Your task to perform on an android device: Open the map Image 0: 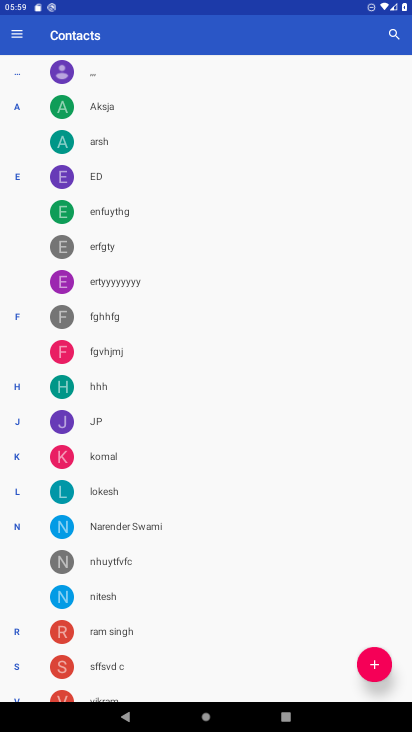
Step 0: press home button
Your task to perform on an android device: Open the map Image 1: 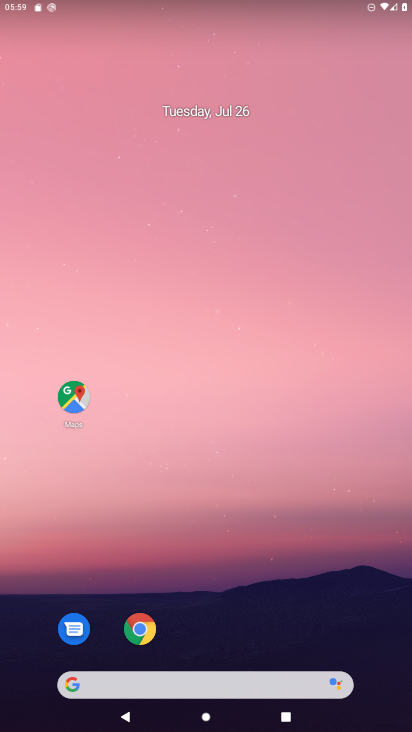
Step 1: click (77, 402)
Your task to perform on an android device: Open the map Image 2: 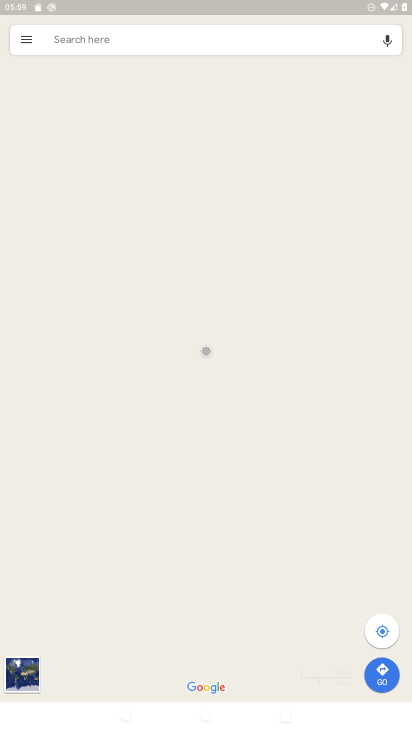
Step 2: task complete